Your task to perform on an android device: Go to eBay Image 0: 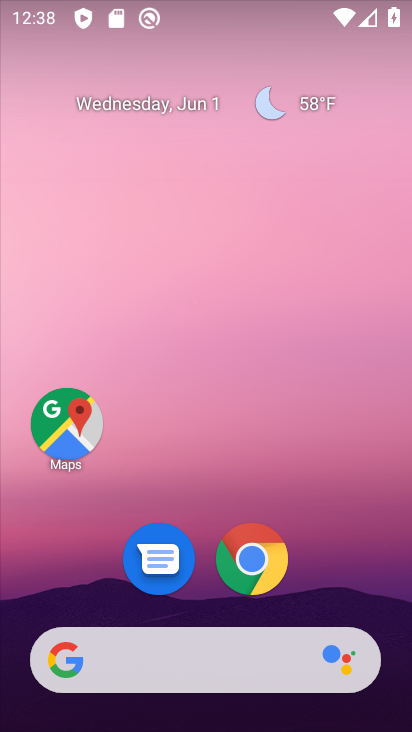
Step 0: click (303, 100)
Your task to perform on an android device: Go to eBay Image 1: 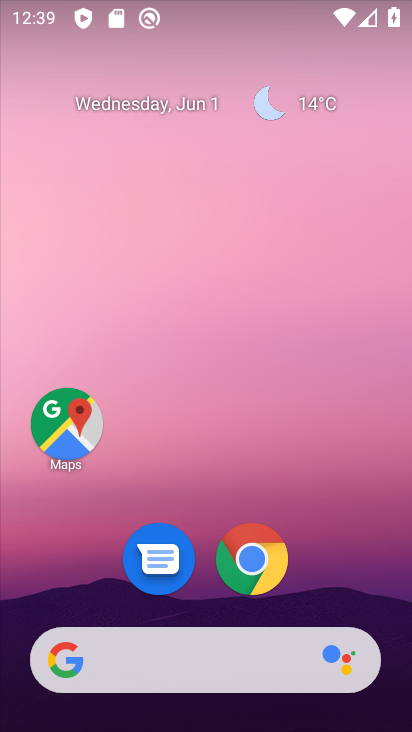
Step 1: click (259, 553)
Your task to perform on an android device: Go to eBay Image 2: 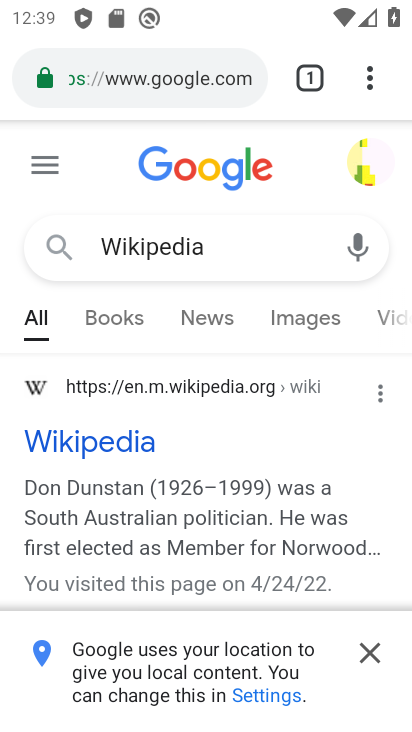
Step 2: click (249, 70)
Your task to perform on an android device: Go to eBay Image 3: 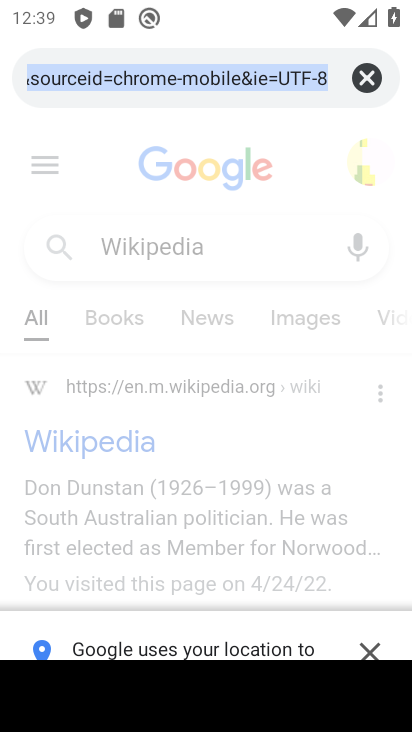
Step 3: click (373, 76)
Your task to perform on an android device: Go to eBay Image 4: 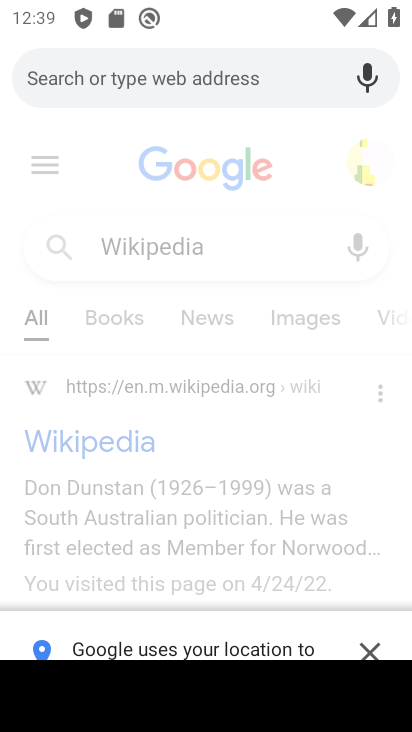
Step 4: type "eBay"
Your task to perform on an android device: Go to eBay Image 5: 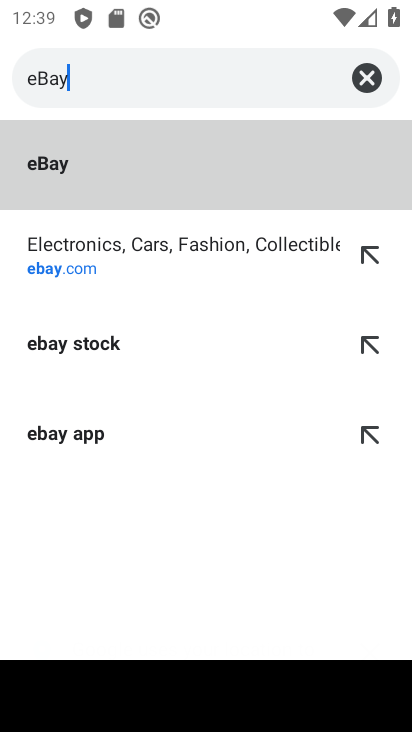
Step 5: click (37, 167)
Your task to perform on an android device: Go to eBay Image 6: 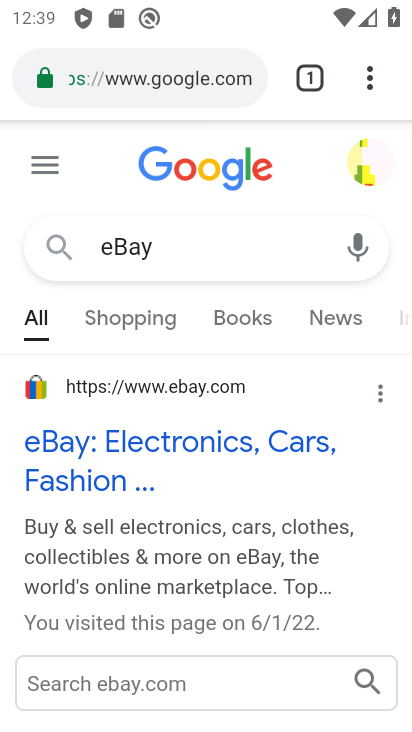
Step 6: task complete